Your task to perform on an android device: Open Youtube and go to the subscriptions tab Image 0: 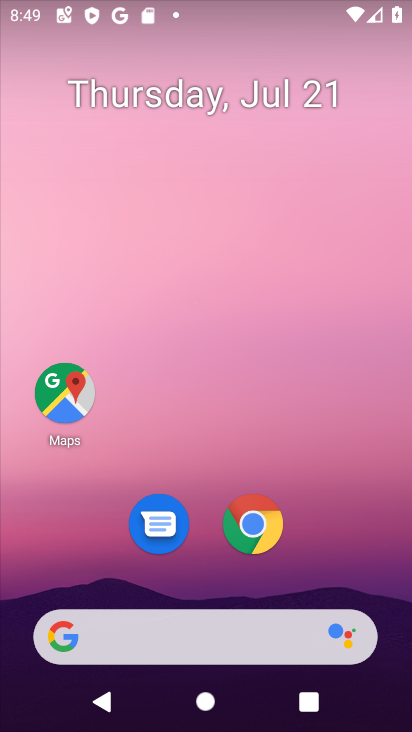
Step 0: press home button
Your task to perform on an android device: Open Youtube and go to the subscriptions tab Image 1: 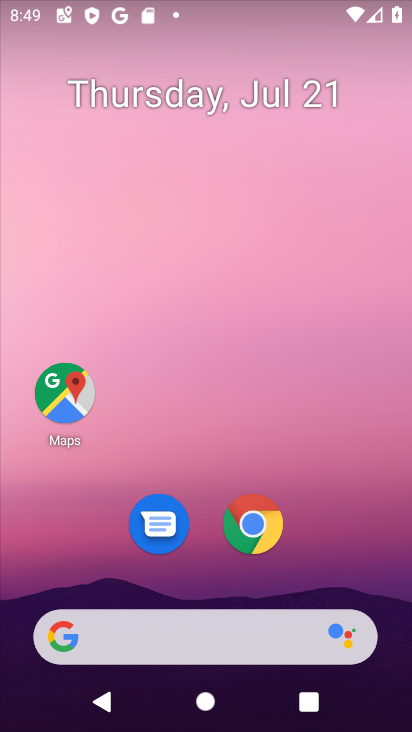
Step 1: drag from (194, 637) to (314, 245)
Your task to perform on an android device: Open Youtube and go to the subscriptions tab Image 2: 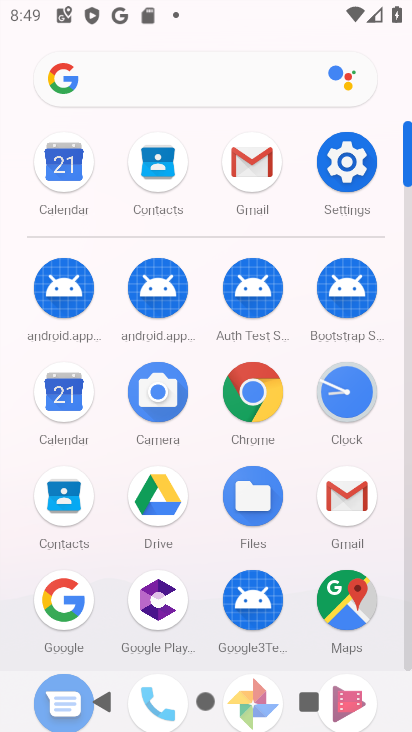
Step 2: drag from (293, 550) to (398, 38)
Your task to perform on an android device: Open Youtube and go to the subscriptions tab Image 3: 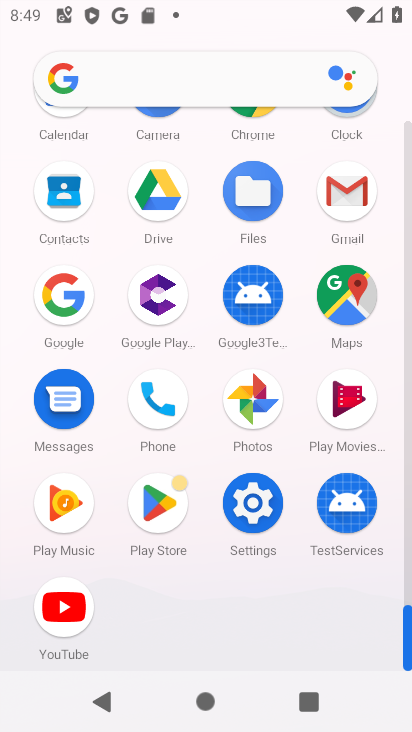
Step 3: click (64, 615)
Your task to perform on an android device: Open Youtube and go to the subscriptions tab Image 4: 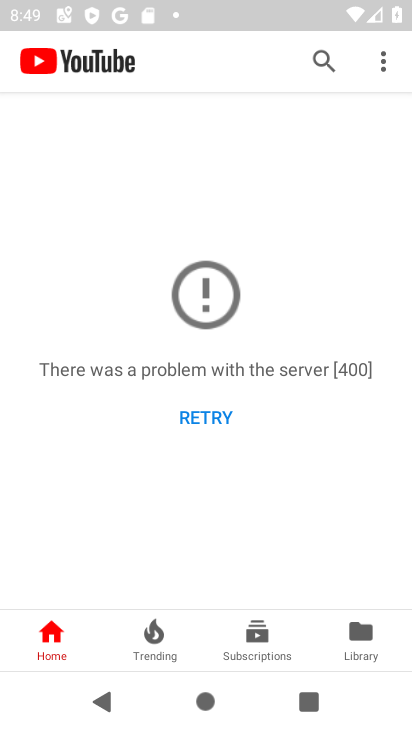
Step 4: click (215, 414)
Your task to perform on an android device: Open Youtube and go to the subscriptions tab Image 5: 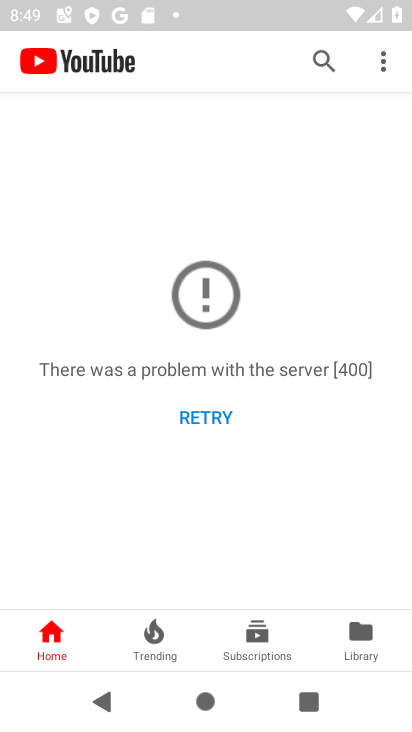
Step 5: click (215, 416)
Your task to perform on an android device: Open Youtube and go to the subscriptions tab Image 6: 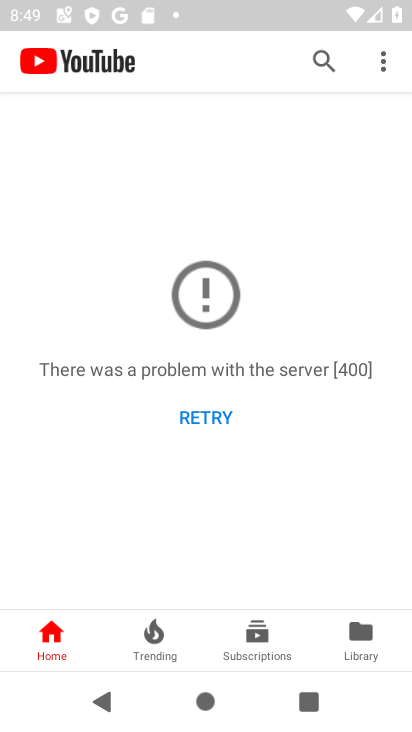
Step 6: click (258, 631)
Your task to perform on an android device: Open Youtube and go to the subscriptions tab Image 7: 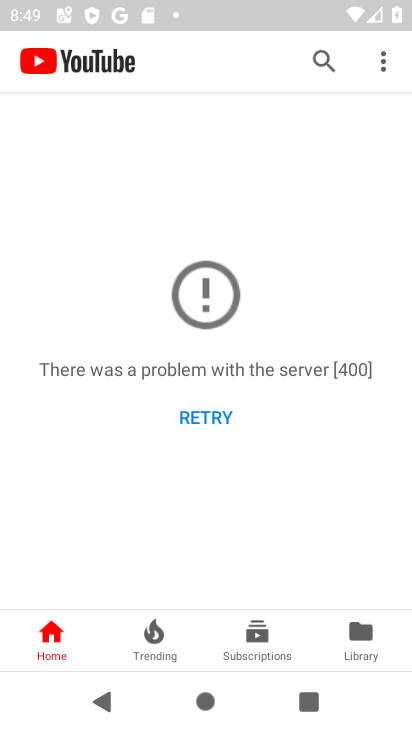
Step 7: click (250, 636)
Your task to perform on an android device: Open Youtube and go to the subscriptions tab Image 8: 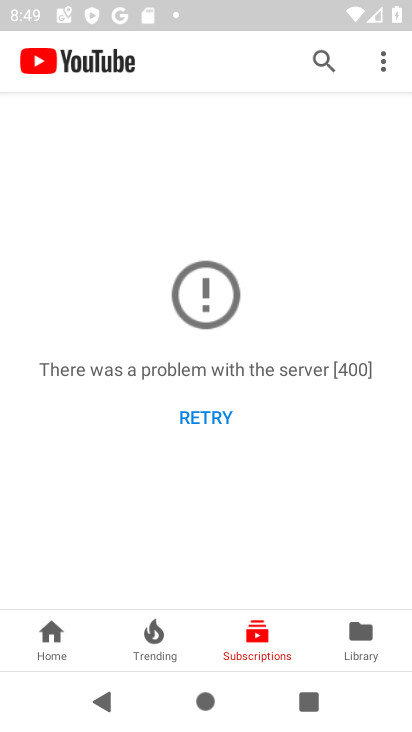
Step 8: click (218, 417)
Your task to perform on an android device: Open Youtube and go to the subscriptions tab Image 9: 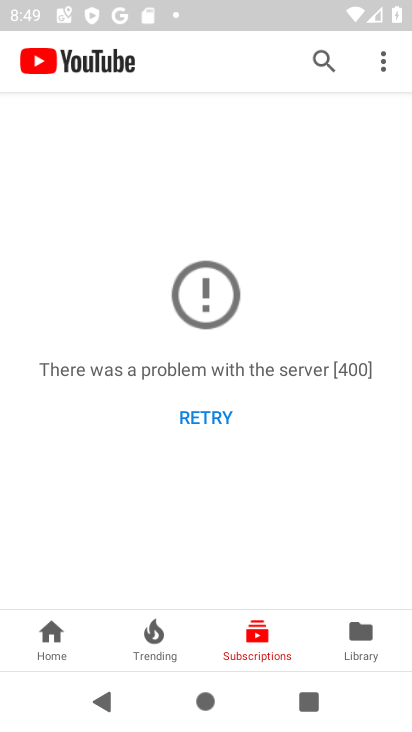
Step 9: task complete